Your task to perform on an android device: Turn off the flashlight Image 0: 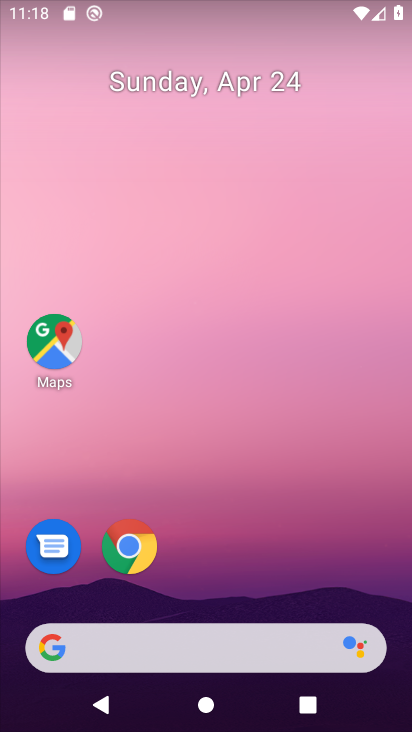
Step 0: task impossible